Your task to perform on an android device: check google app version Image 0: 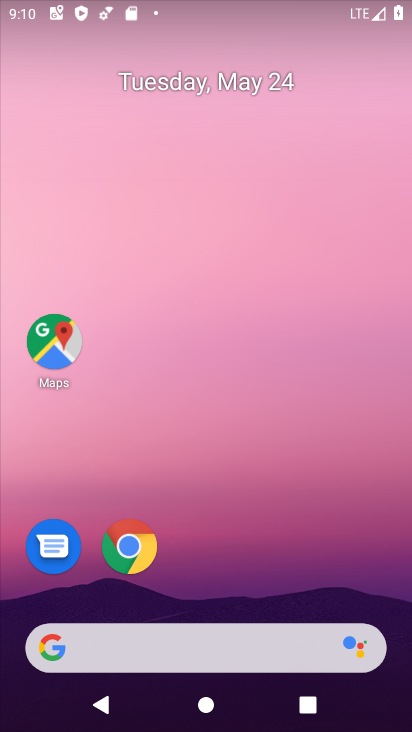
Step 0: click (218, 663)
Your task to perform on an android device: check google app version Image 1: 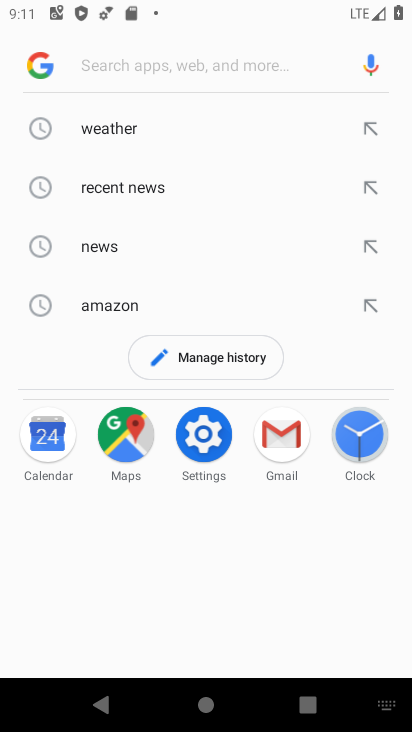
Step 1: click (44, 61)
Your task to perform on an android device: check google app version Image 2: 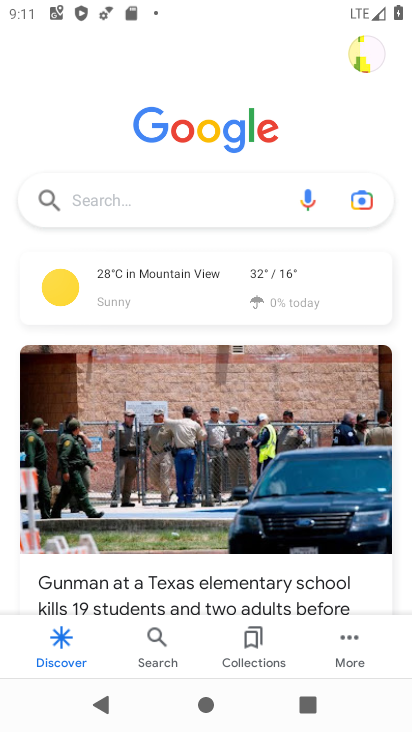
Step 2: click (347, 636)
Your task to perform on an android device: check google app version Image 3: 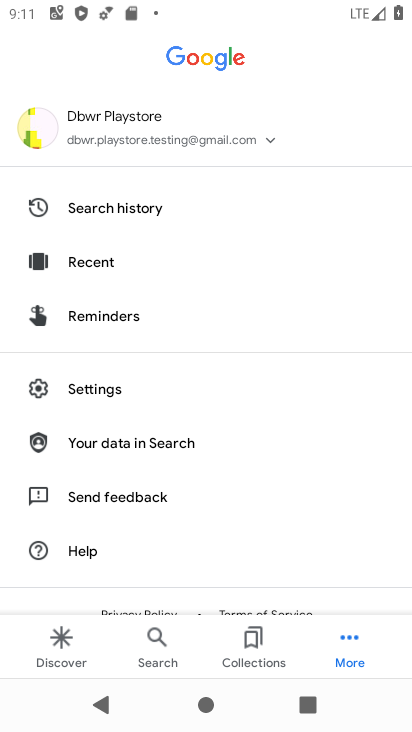
Step 3: click (167, 379)
Your task to perform on an android device: check google app version Image 4: 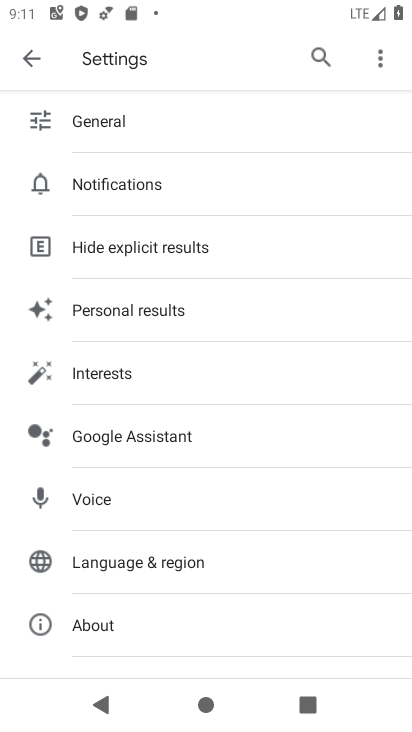
Step 4: click (187, 611)
Your task to perform on an android device: check google app version Image 5: 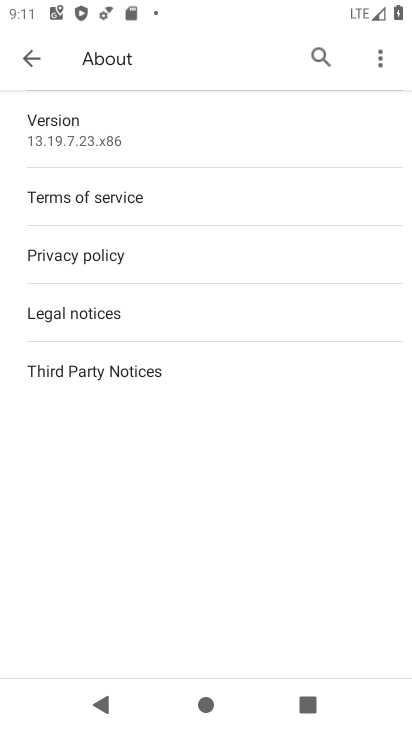
Step 5: task complete